Your task to perform on an android device: Search for vegetarian restaurants on Maps Image 0: 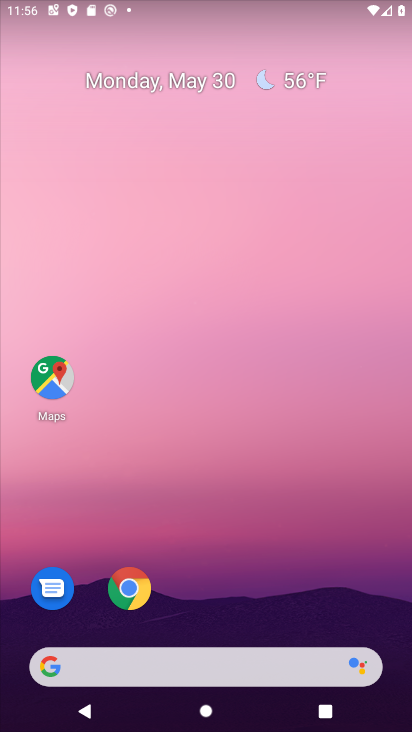
Step 0: click (63, 379)
Your task to perform on an android device: Search for vegetarian restaurants on Maps Image 1: 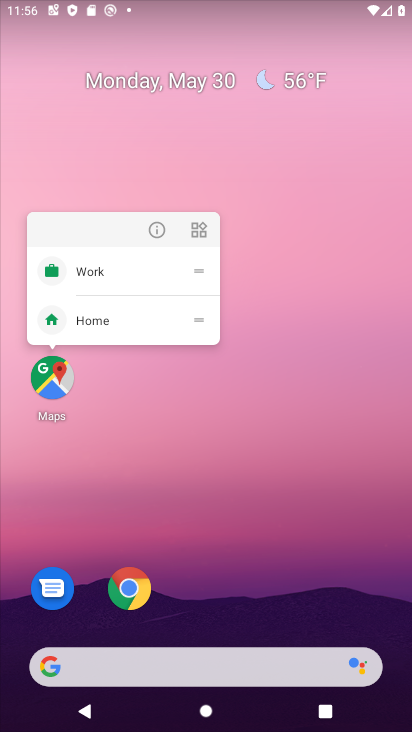
Step 1: click (54, 393)
Your task to perform on an android device: Search for vegetarian restaurants on Maps Image 2: 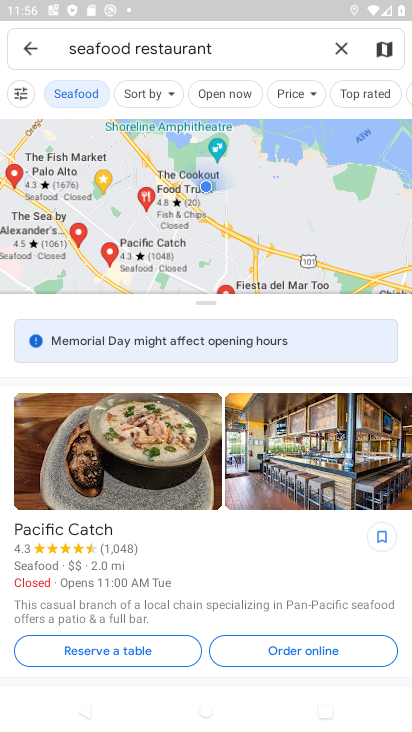
Step 2: click (343, 52)
Your task to perform on an android device: Search for vegetarian restaurants on Maps Image 3: 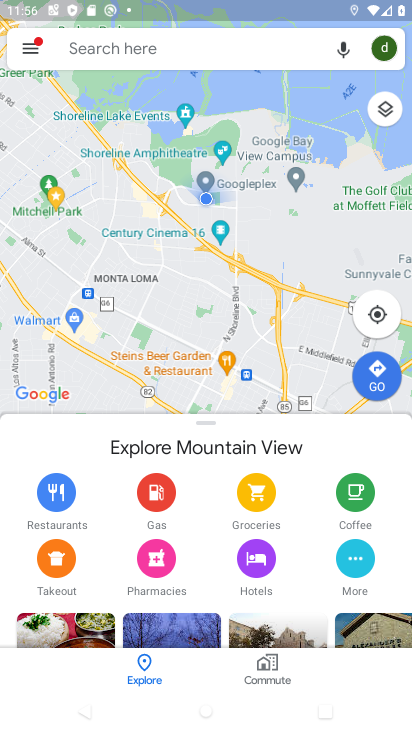
Step 3: click (184, 42)
Your task to perform on an android device: Search for vegetarian restaurants on Maps Image 4: 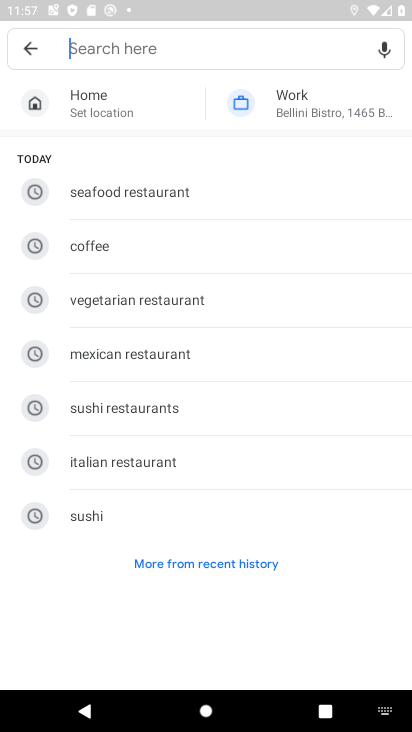
Step 4: click (115, 301)
Your task to perform on an android device: Search for vegetarian restaurants on Maps Image 5: 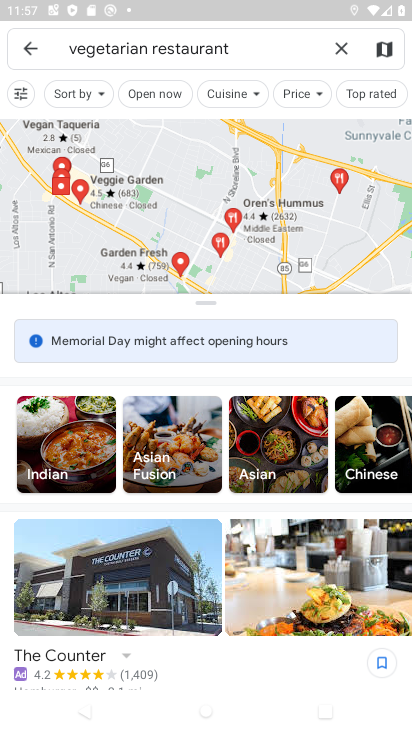
Step 5: task complete